Your task to perform on an android device: open app "Yahoo Mail" (install if not already installed) and enter user name: "lawsuit@inbox.com" and password: "pooch" Image 0: 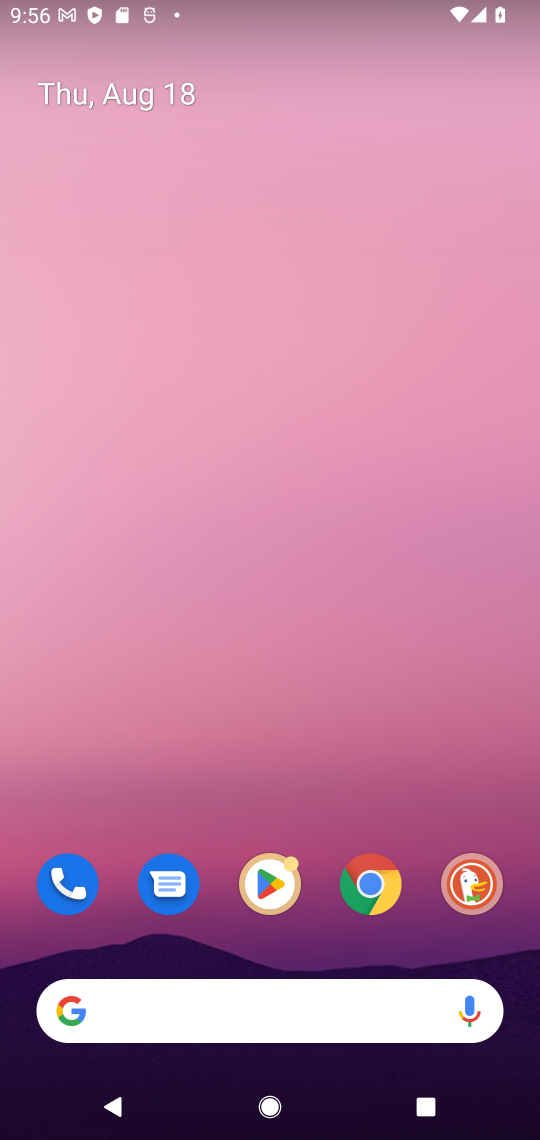
Step 0: click (263, 889)
Your task to perform on an android device: open app "Yahoo Mail" (install if not already installed) and enter user name: "lawsuit@inbox.com" and password: "pooch" Image 1: 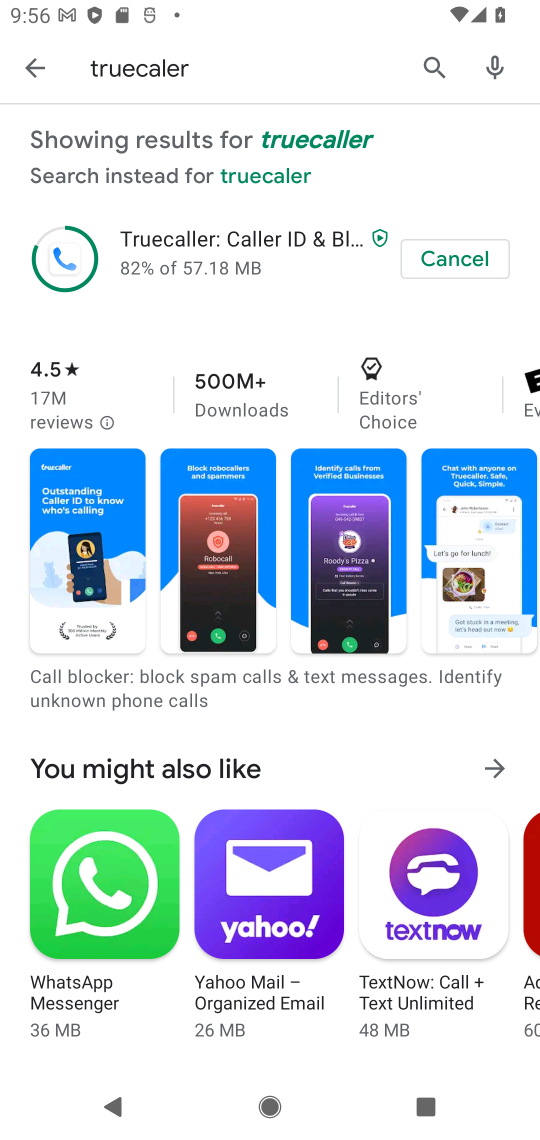
Step 1: click (437, 62)
Your task to perform on an android device: open app "Yahoo Mail" (install if not already installed) and enter user name: "lawsuit@inbox.com" and password: "pooch" Image 2: 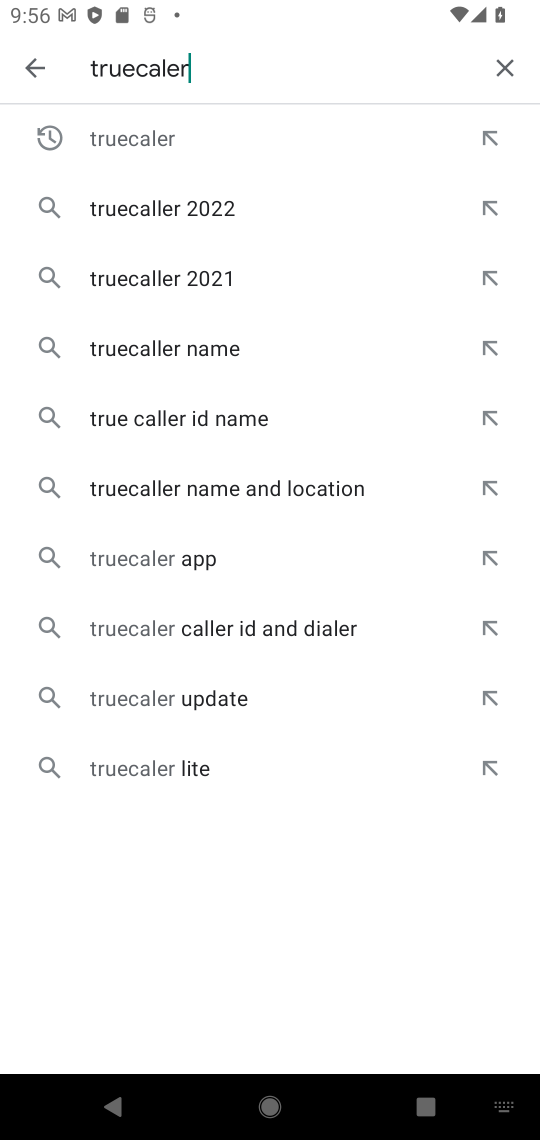
Step 2: click (495, 79)
Your task to perform on an android device: open app "Yahoo Mail" (install if not already installed) and enter user name: "lawsuit@inbox.com" and password: "pooch" Image 3: 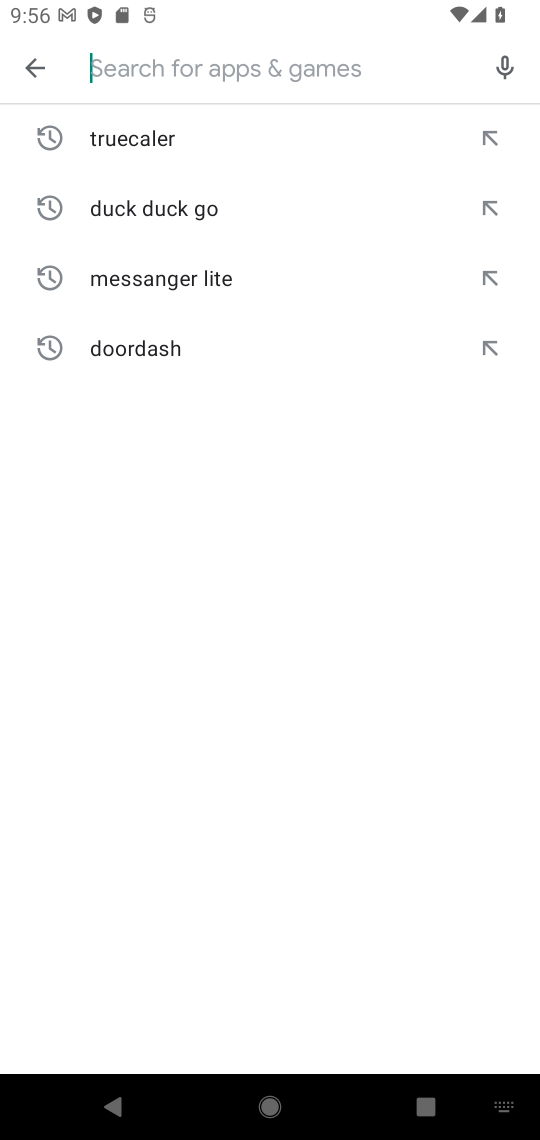
Step 3: type "yahoo mail"
Your task to perform on an android device: open app "Yahoo Mail" (install if not already installed) and enter user name: "lawsuit@inbox.com" and password: "pooch" Image 4: 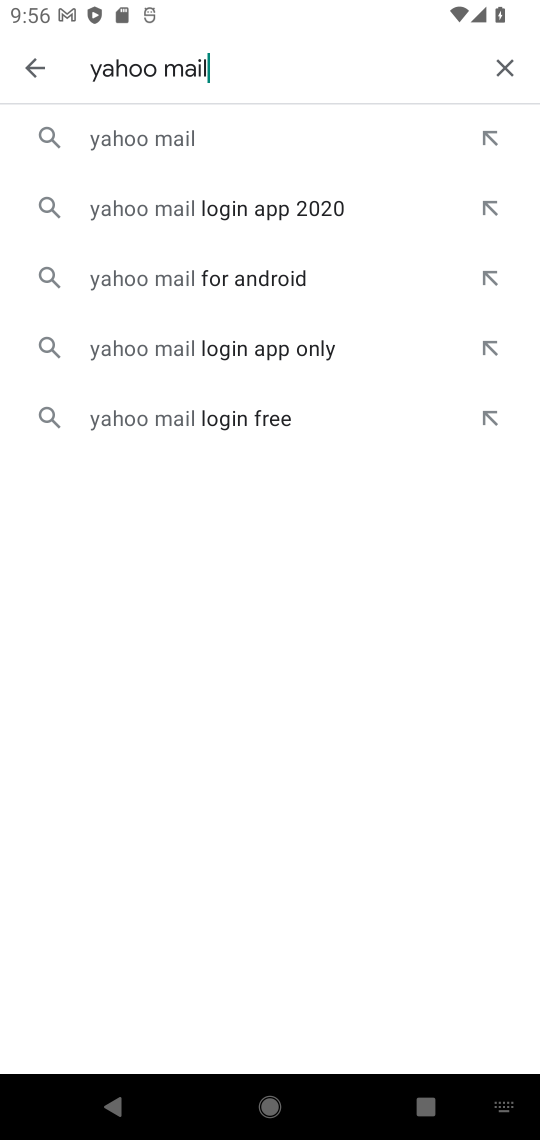
Step 4: click (133, 142)
Your task to perform on an android device: open app "Yahoo Mail" (install if not already installed) and enter user name: "lawsuit@inbox.com" and password: "pooch" Image 5: 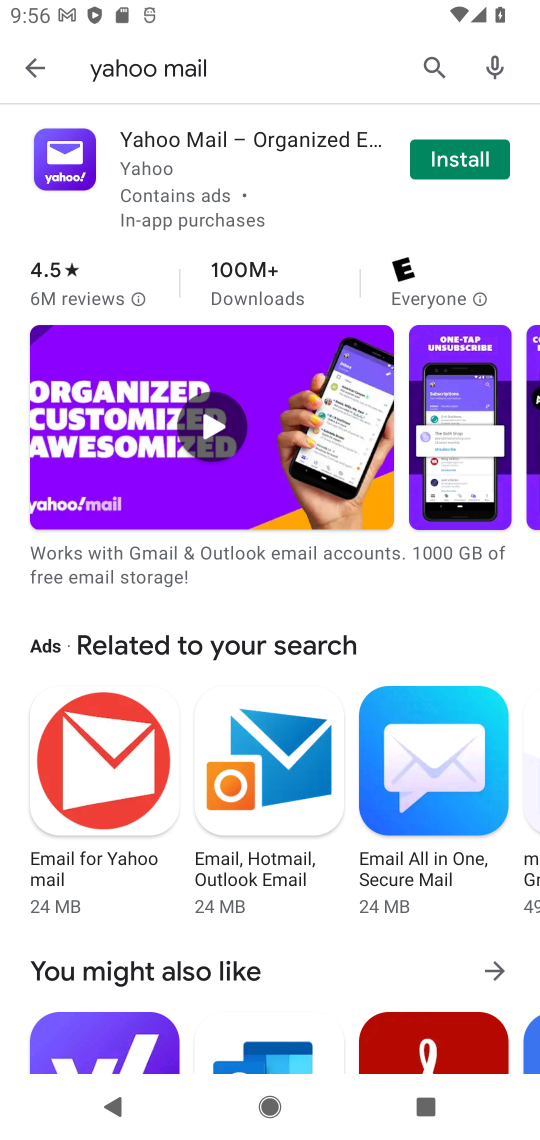
Step 5: click (457, 154)
Your task to perform on an android device: open app "Yahoo Mail" (install if not already installed) and enter user name: "lawsuit@inbox.com" and password: "pooch" Image 6: 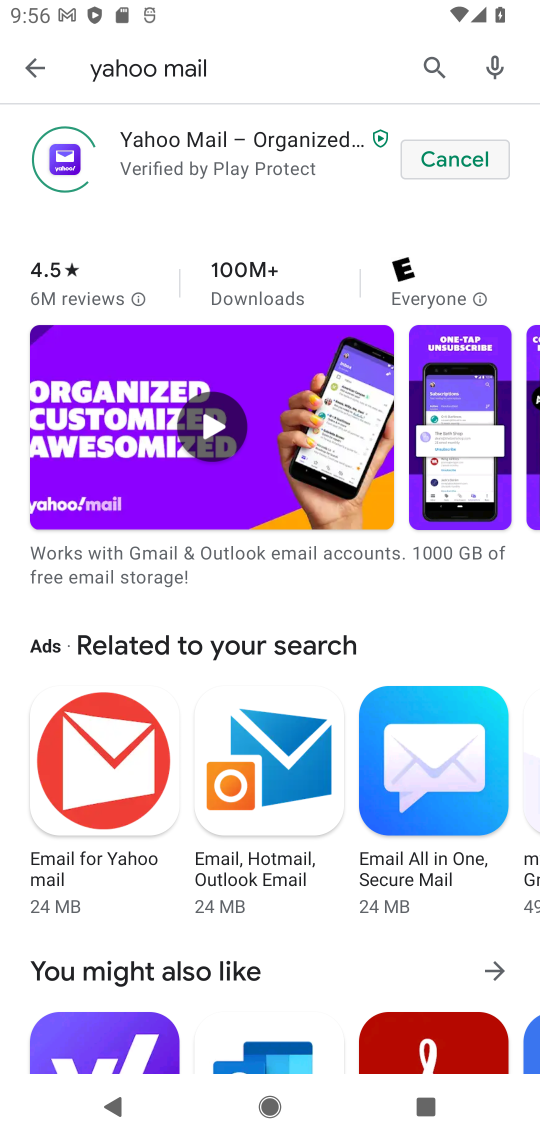
Step 6: task complete